Your task to perform on an android device: Search for the best burger restaurants on Maps Image 0: 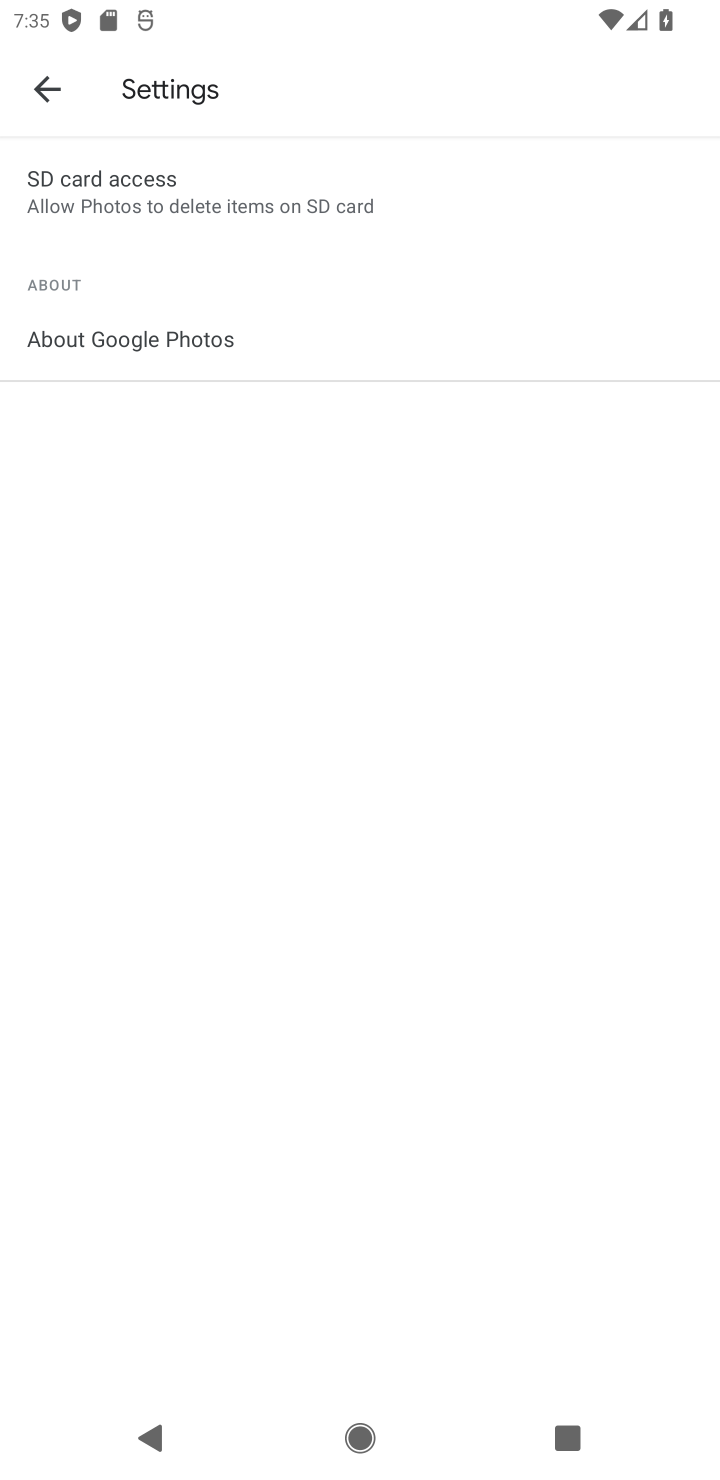
Step 0: press home button
Your task to perform on an android device: Search for the best burger restaurants on Maps Image 1: 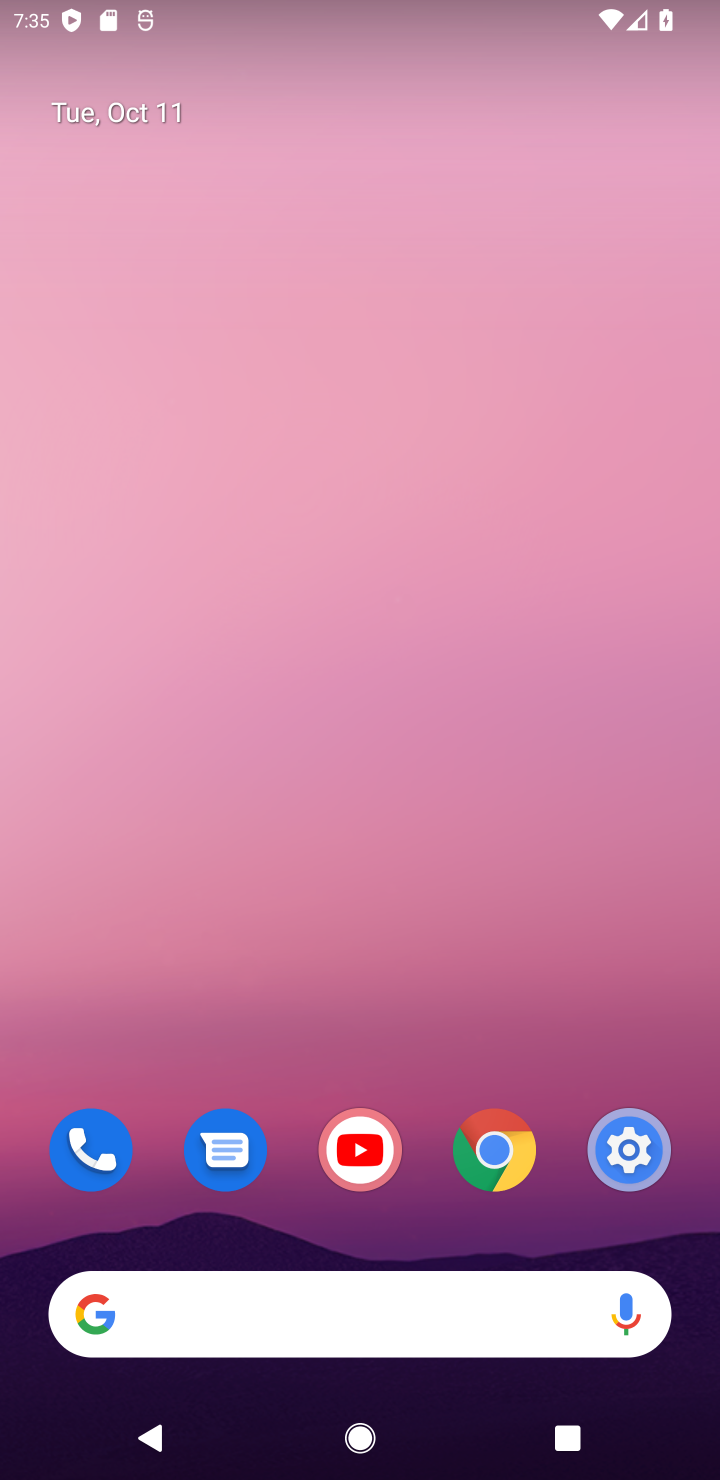
Step 1: drag from (574, 921) to (508, 4)
Your task to perform on an android device: Search for the best burger restaurants on Maps Image 2: 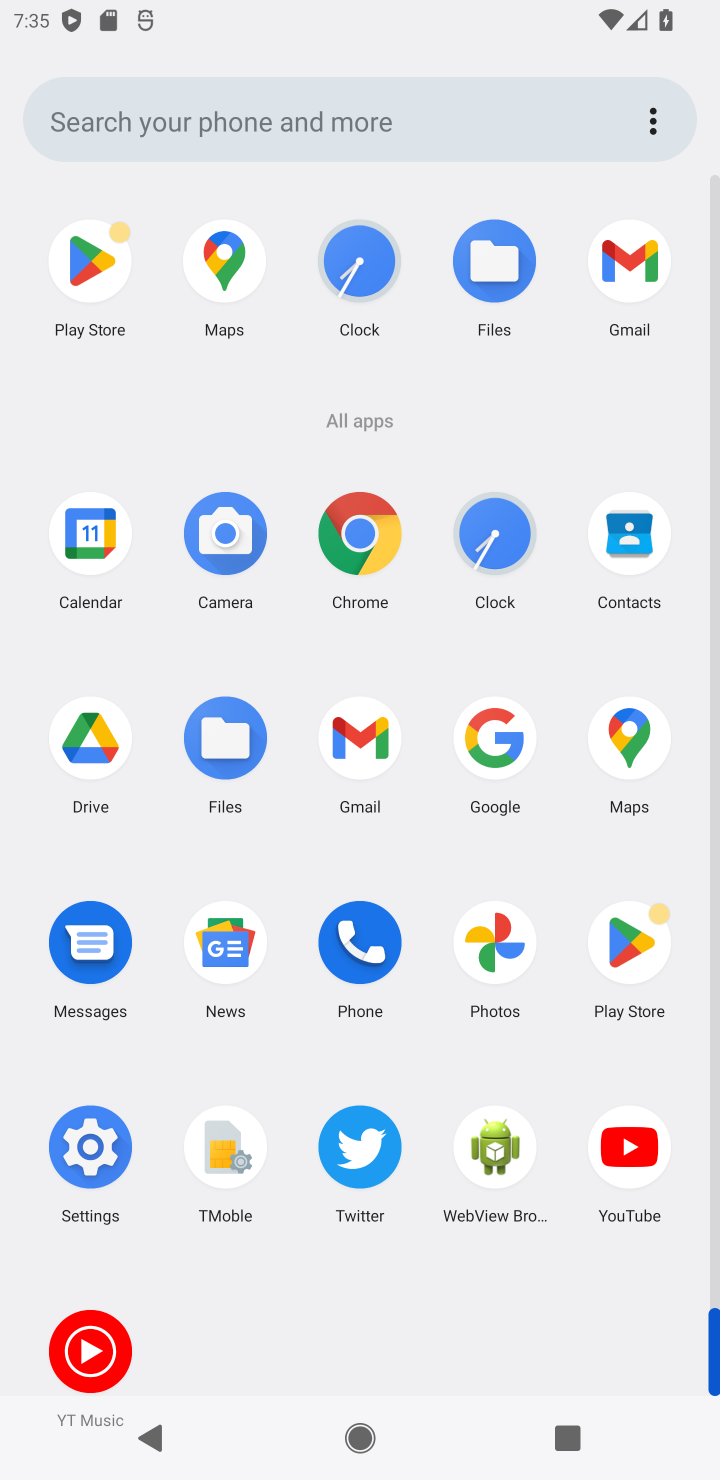
Step 2: click (221, 248)
Your task to perform on an android device: Search for the best burger restaurants on Maps Image 3: 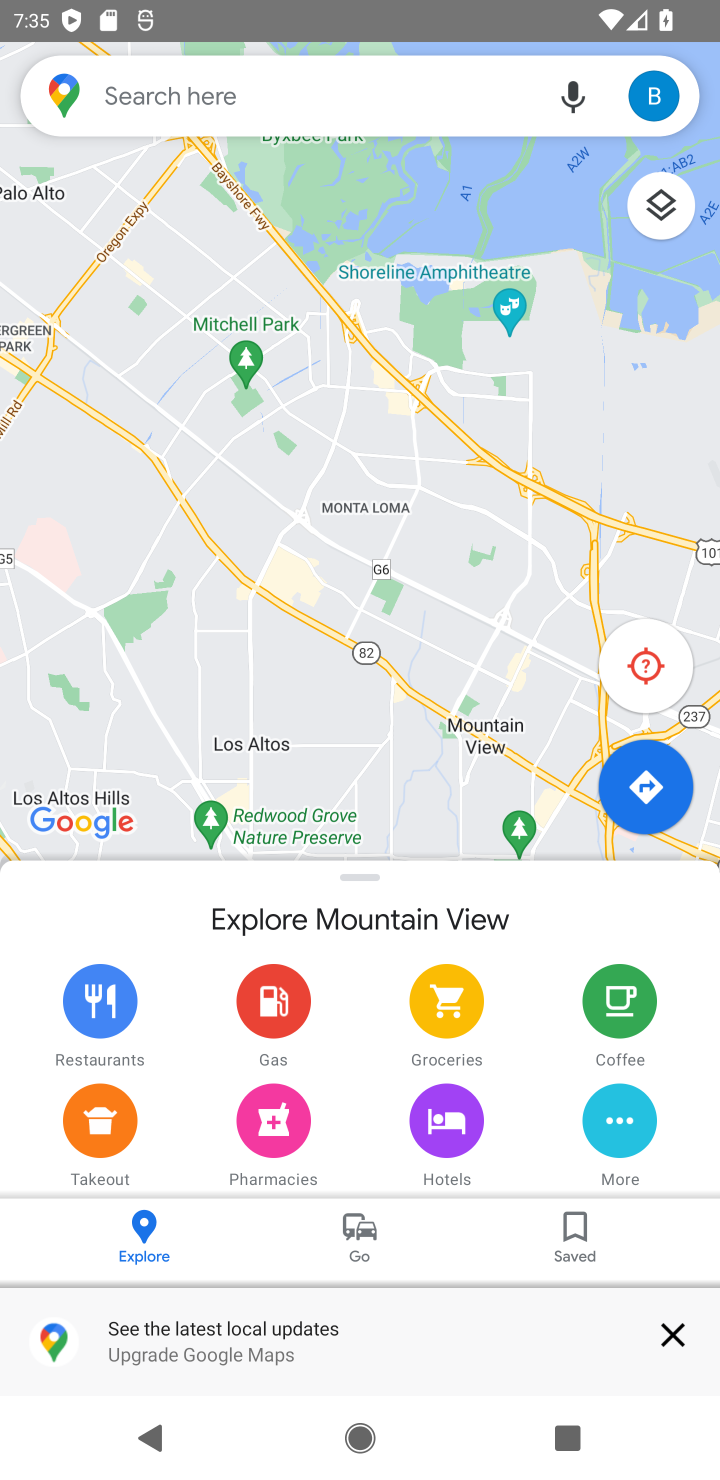
Step 3: click (206, 101)
Your task to perform on an android device: Search for the best burger restaurants on Maps Image 4: 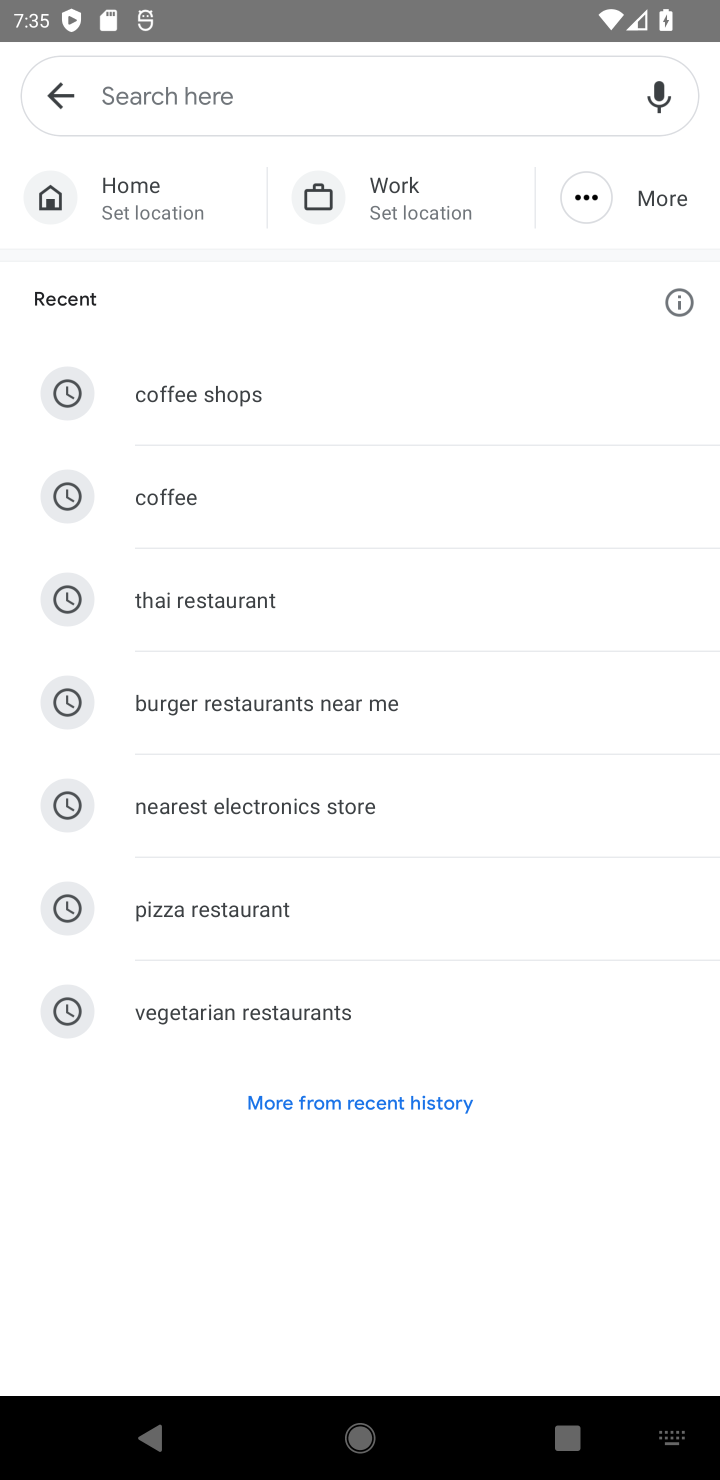
Step 4: type "best burger restaurants"
Your task to perform on an android device: Search for the best burger restaurants on Maps Image 5: 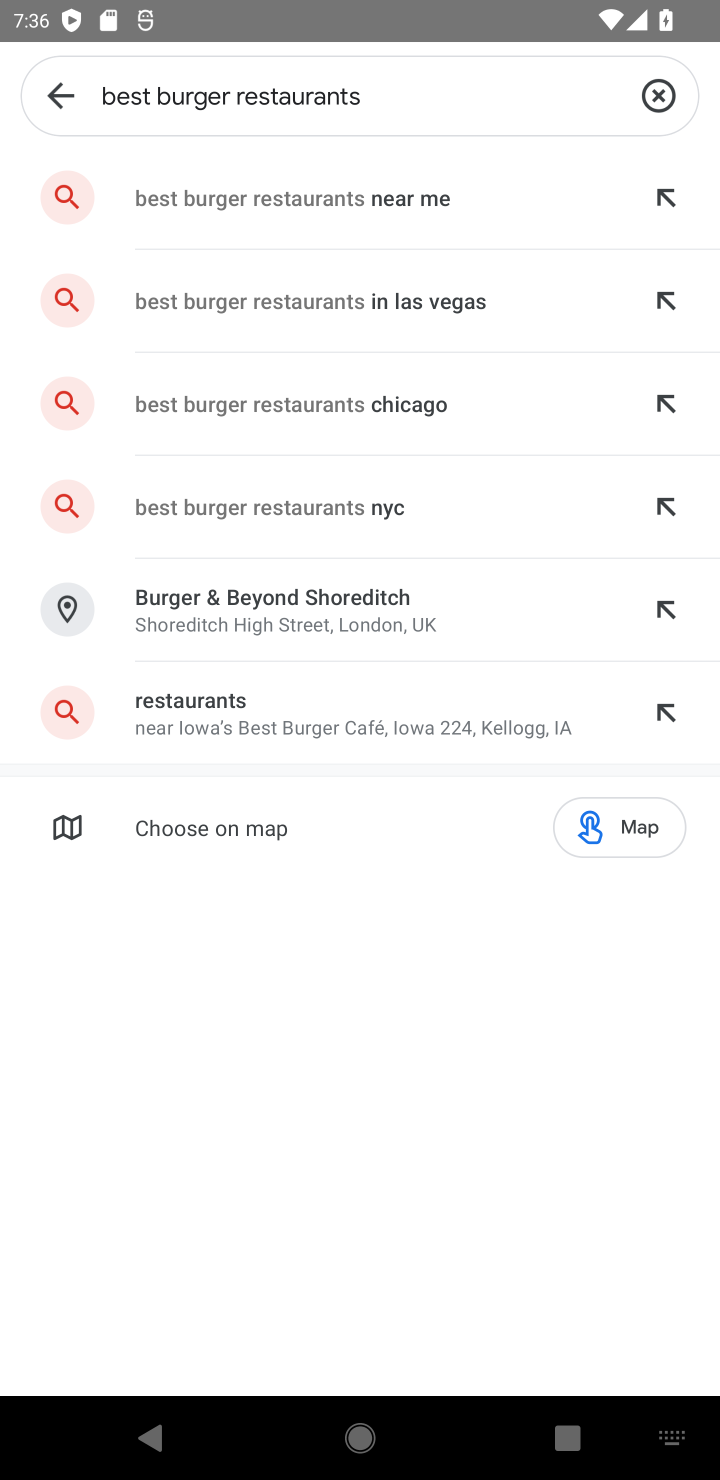
Step 5: click (336, 213)
Your task to perform on an android device: Search for the best burger restaurants on Maps Image 6: 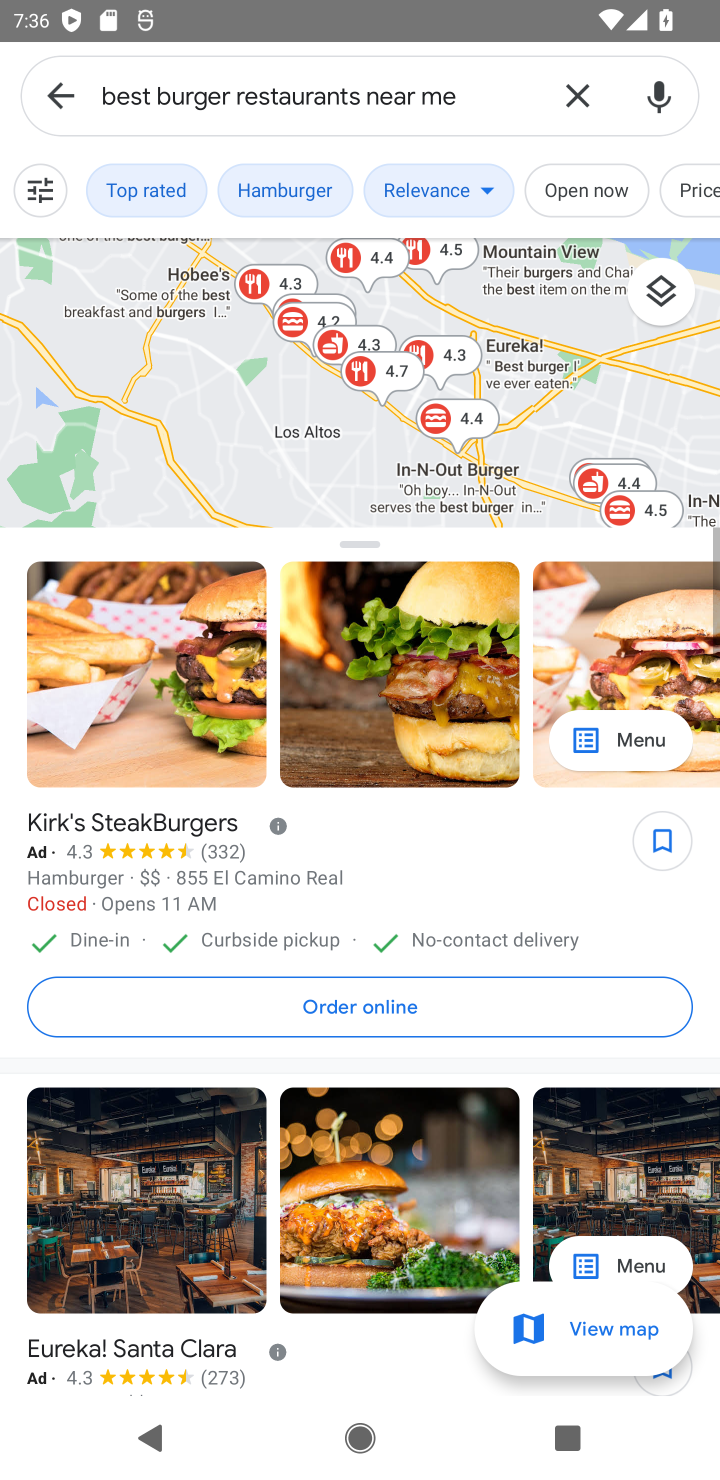
Step 6: task complete